Your task to perform on an android device: Go to Yahoo.com Image 0: 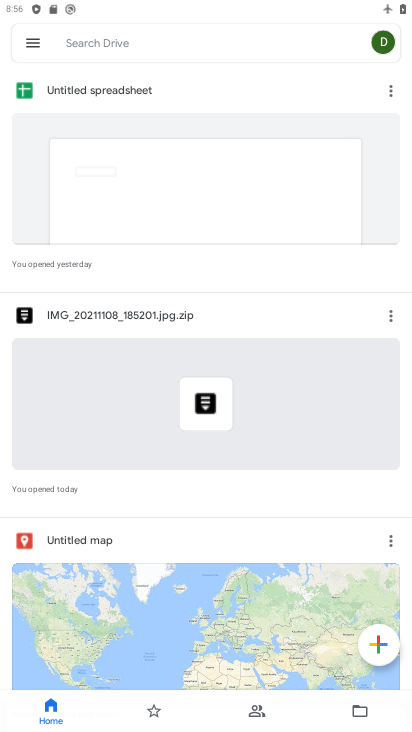
Step 0: press home button
Your task to perform on an android device: Go to Yahoo.com Image 1: 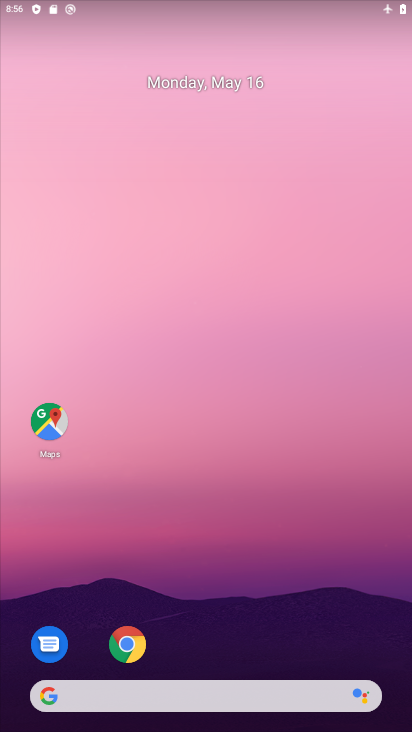
Step 1: click (238, 700)
Your task to perform on an android device: Go to Yahoo.com Image 2: 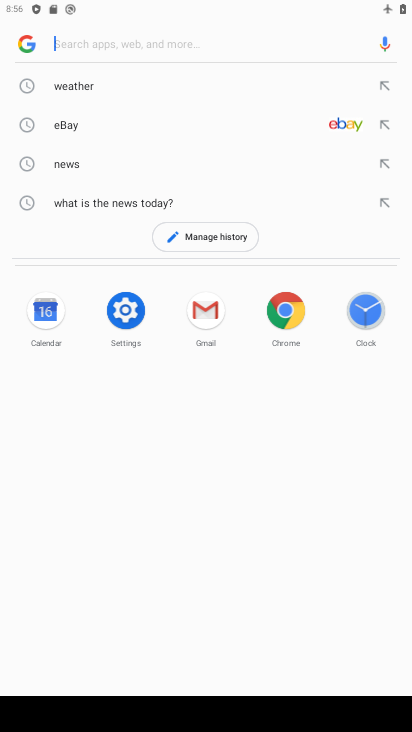
Step 2: type "yahoo.com"
Your task to perform on an android device: Go to Yahoo.com Image 3: 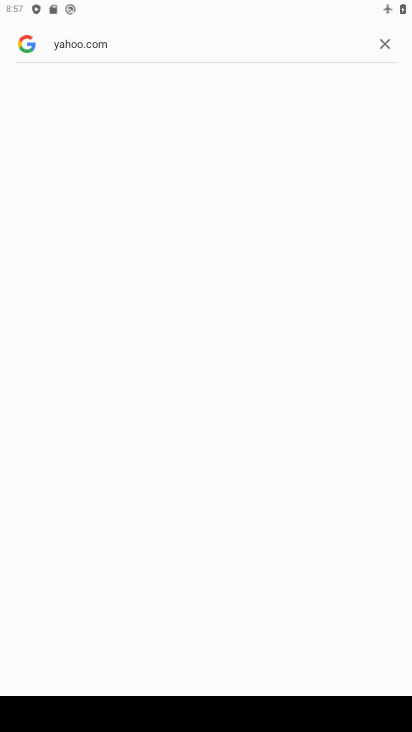
Step 3: task complete